Your task to perform on an android device: check google app version Image 0: 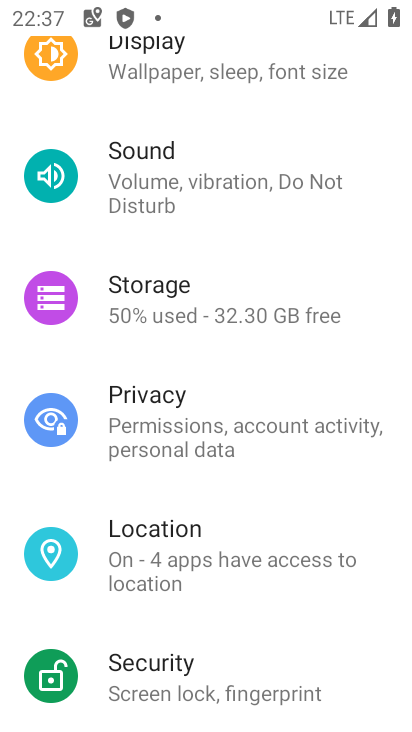
Step 0: press home button
Your task to perform on an android device: check google app version Image 1: 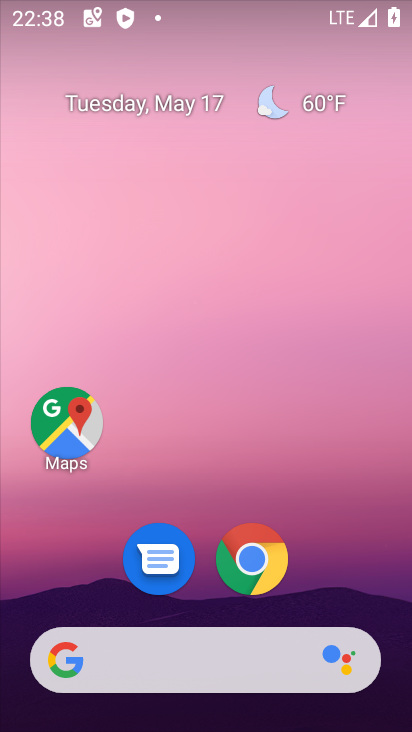
Step 1: drag from (359, 558) to (337, 37)
Your task to perform on an android device: check google app version Image 2: 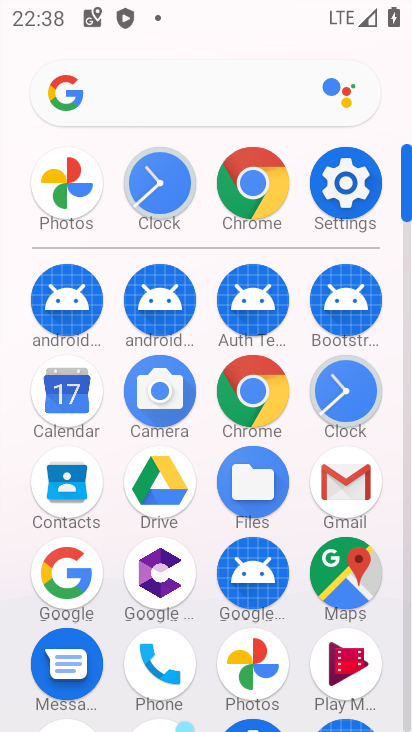
Step 2: click (64, 580)
Your task to perform on an android device: check google app version Image 3: 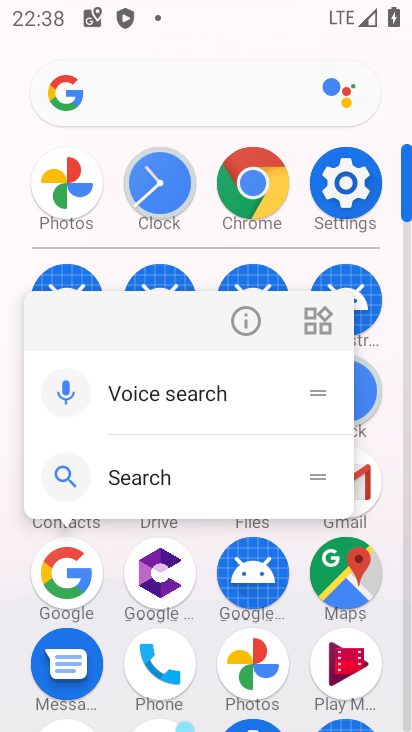
Step 3: click (253, 308)
Your task to perform on an android device: check google app version Image 4: 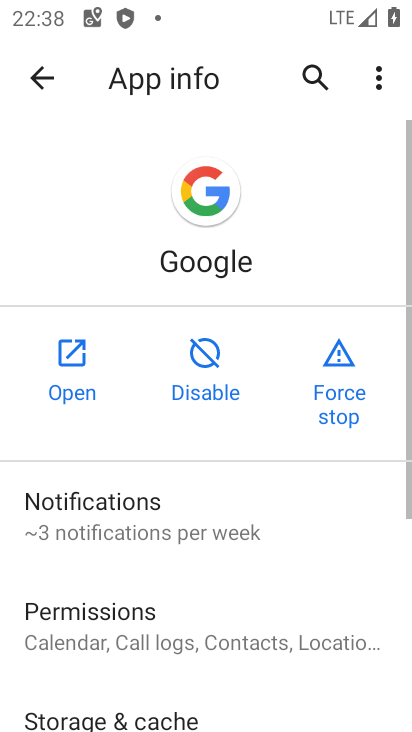
Step 4: drag from (269, 591) to (251, 165)
Your task to perform on an android device: check google app version Image 5: 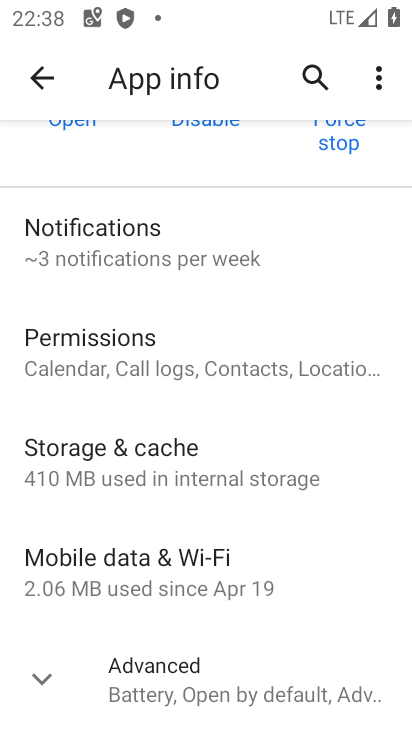
Step 5: drag from (209, 622) to (295, 214)
Your task to perform on an android device: check google app version Image 6: 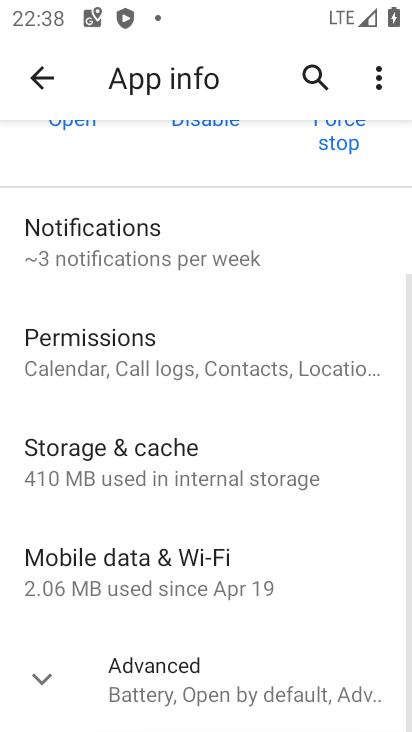
Step 6: click (166, 694)
Your task to perform on an android device: check google app version Image 7: 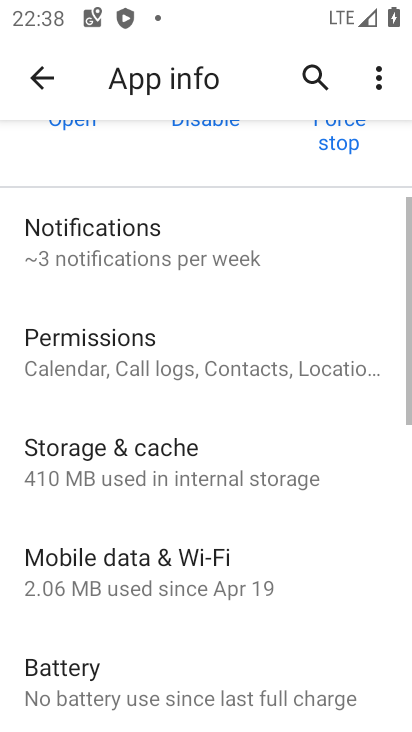
Step 7: task complete